Your task to perform on an android device: toggle notifications settings in the gmail app Image 0: 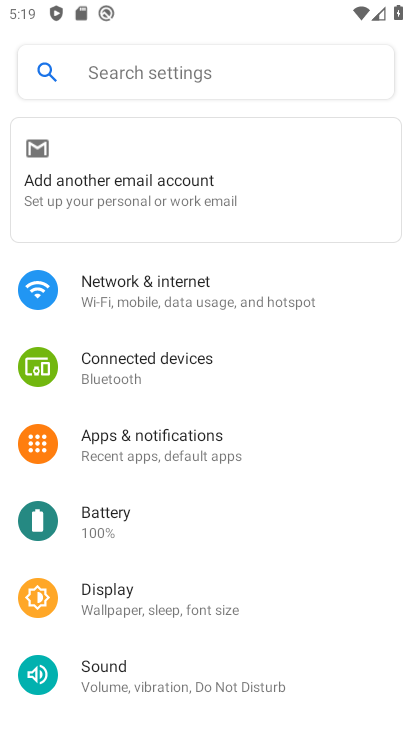
Step 0: press home button
Your task to perform on an android device: toggle notifications settings in the gmail app Image 1: 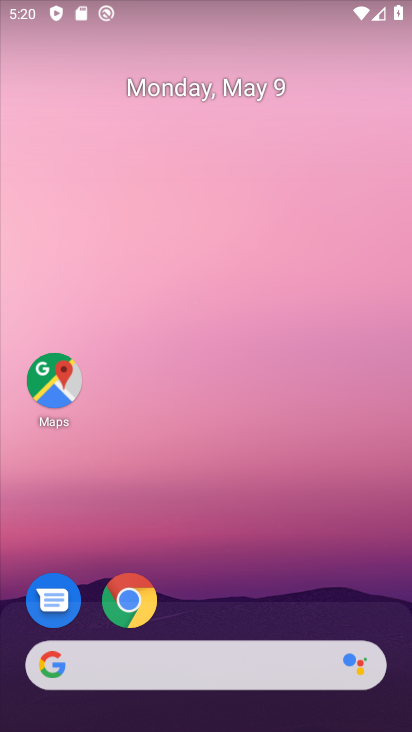
Step 1: drag from (228, 221) to (238, 98)
Your task to perform on an android device: toggle notifications settings in the gmail app Image 2: 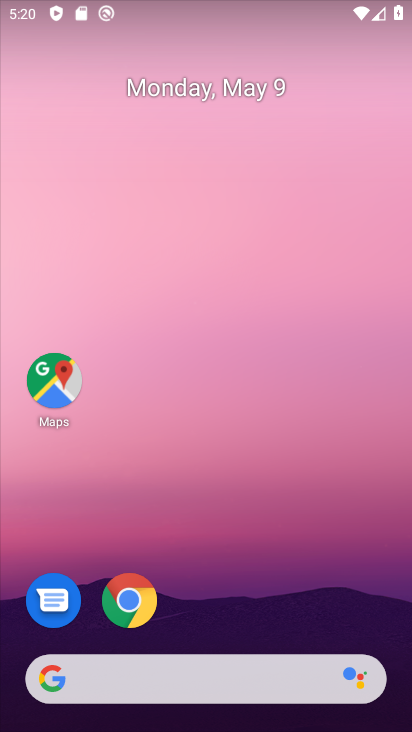
Step 2: drag from (189, 590) to (221, 218)
Your task to perform on an android device: toggle notifications settings in the gmail app Image 3: 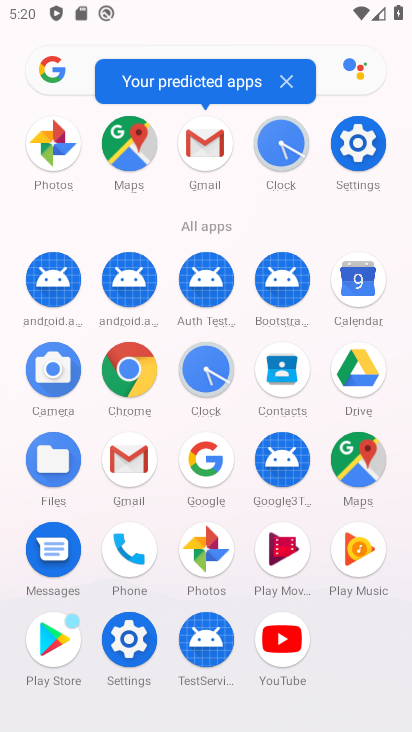
Step 3: click (122, 466)
Your task to perform on an android device: toggle notifications settings in the gmail app Image 4: 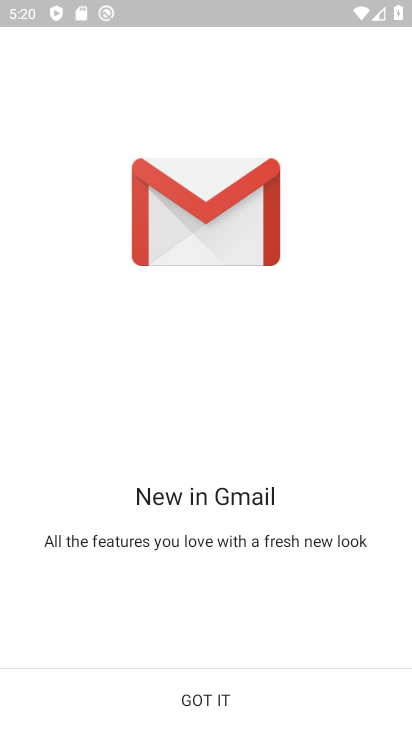
Step 4: click (282, 693)
Your task to perform on an android device: toggle notifications settings in the gmail app Image 5: 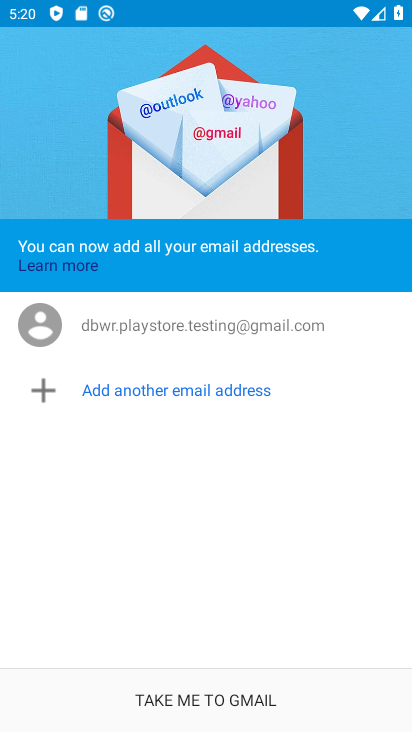
Step 5: click (183, 690)
Your task to perform on an android device: toggle notifications settings in the gmail app Image 6: 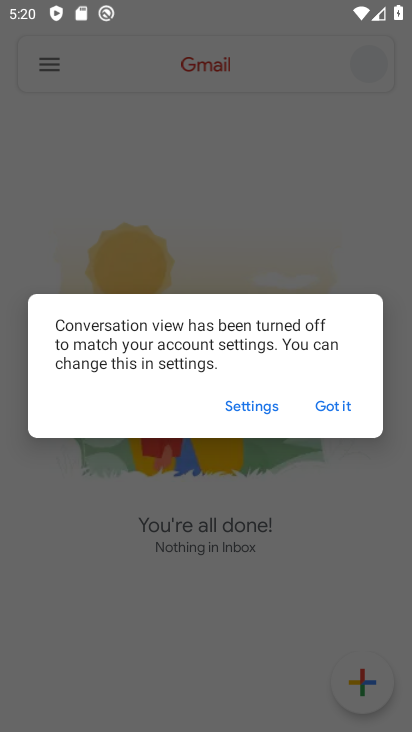
Step 6: click (339, 403)
Your task to perform on an android device: toggle notifications settings in the gmail app Image 7: 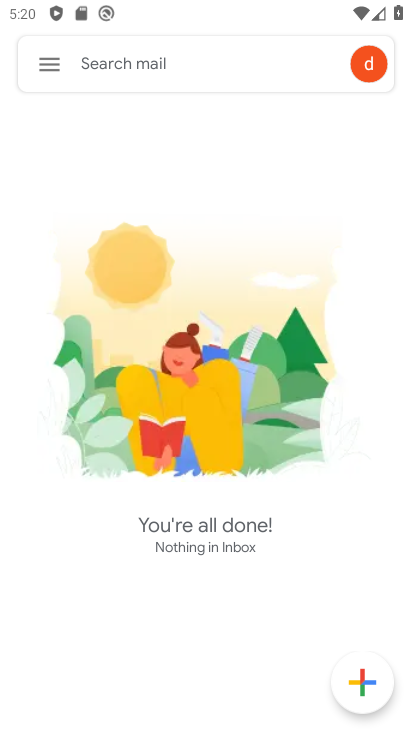
Step 7: click (54, 60)
Your task to perform on an android device: toggle notifications settings in the gmail app Image 8: 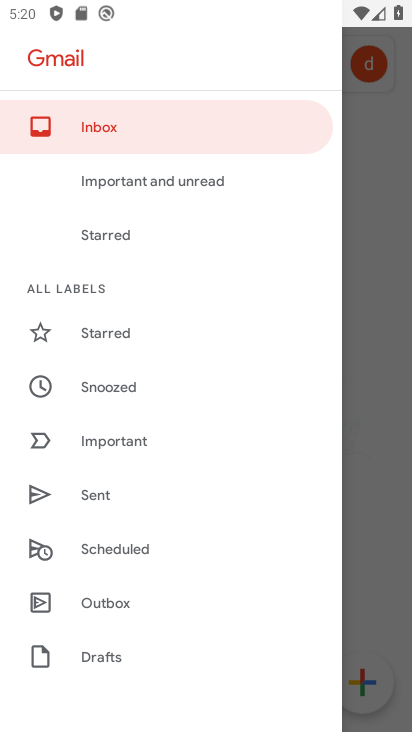
Step 8: drag from (156, 569) to (204, 148)
Your task to perform on an android device: toggle notifications settings in the gmail app Image 9: 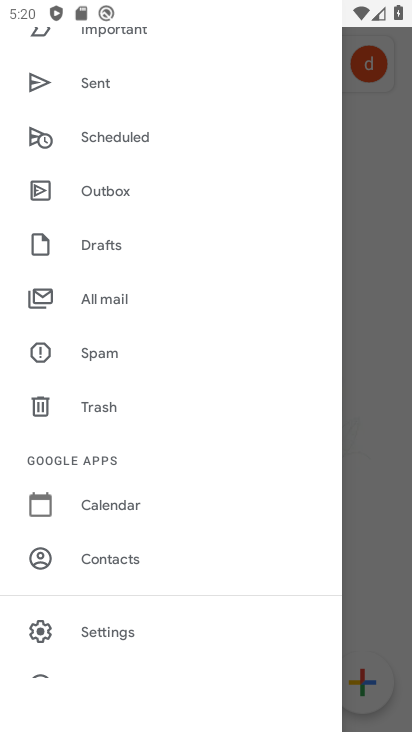
Step 9: drag from (88, 615) to (99, 366)
Your task to perform on an android device: toggle notifications settings in the gmail app Image 10: 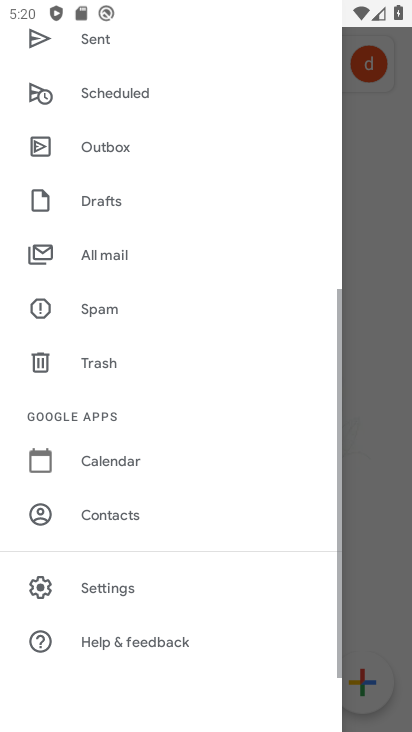
Step 10: click (110, 591)
Your task to perform on an android device: toggle notifications settings in the gmail app Image 11: 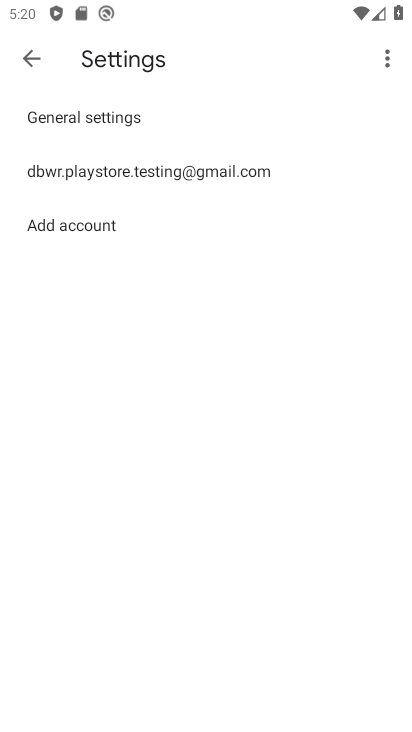
Step 11: click (114, 127)
Your task to perform on an android device: toggle notifications settings in the gmail app Image 12: 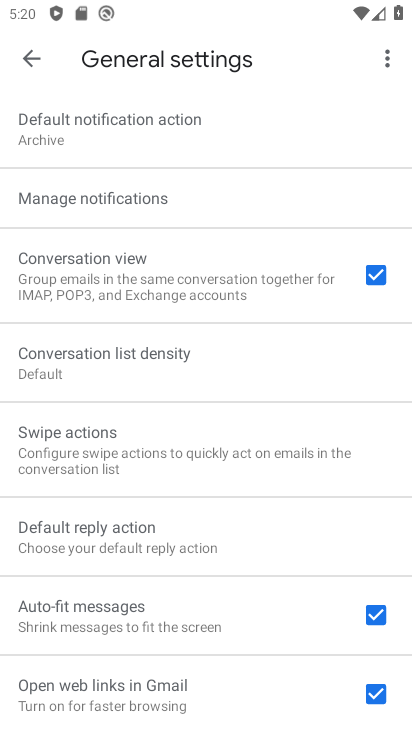
Step 12: click (111, 203)
Your task to perform on an android device: toggle notifications settings in the gmail app Image 13: 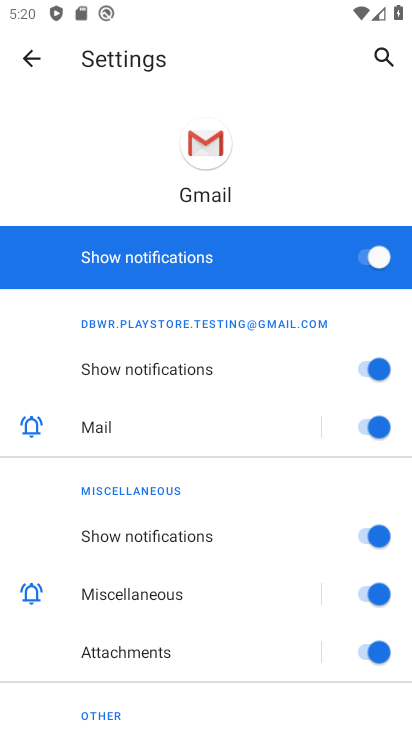
Step 13: click (334, 258)
Your task to perform on an android device: toggle notifications settings in the gmail app Image 14: 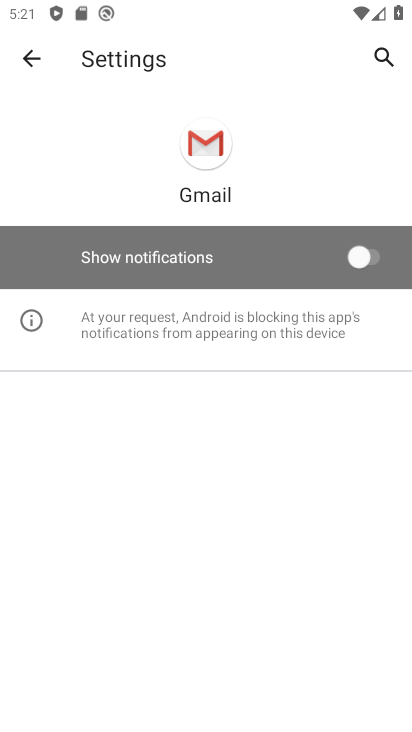
Step 14: task complete